Your task to perform on an android device: Do I have any events this weekend? Image 0: 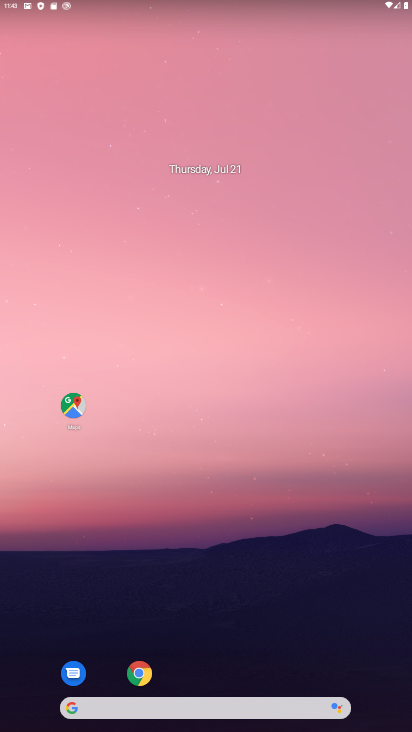
Step 0: drag from (230, 576) to (189, 314)
Your task to perform on an android device: Do I have any events this weekend? Image 1: 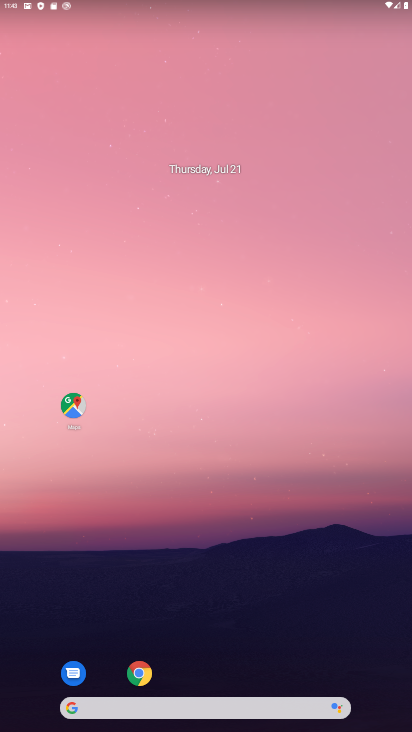
Step 1: drag from (210, 591) to (203, 143)
Your task to perform on an android device: Do I have any events this weekend? Image 2: 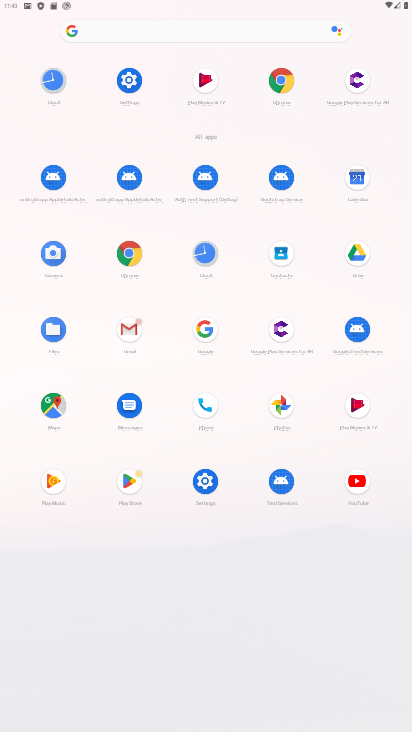
Step 2: click (354, 179)
Your task to perform on an android device: Do I have any events this weekend? Image 3: 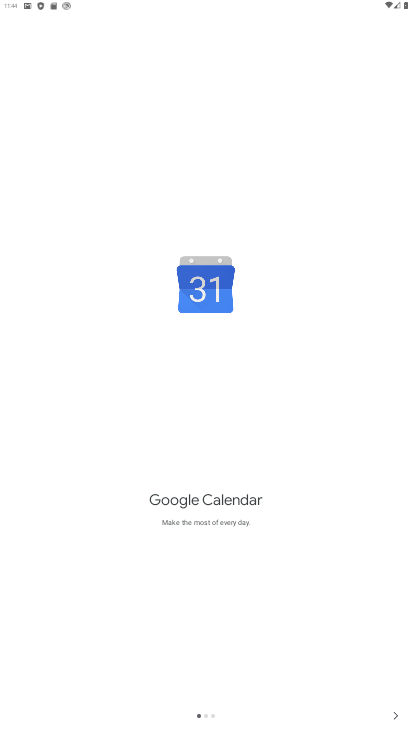
Step 3: click (395, 714)
Your task to perform on an android device: Do I have any events this weekend? Image 4: 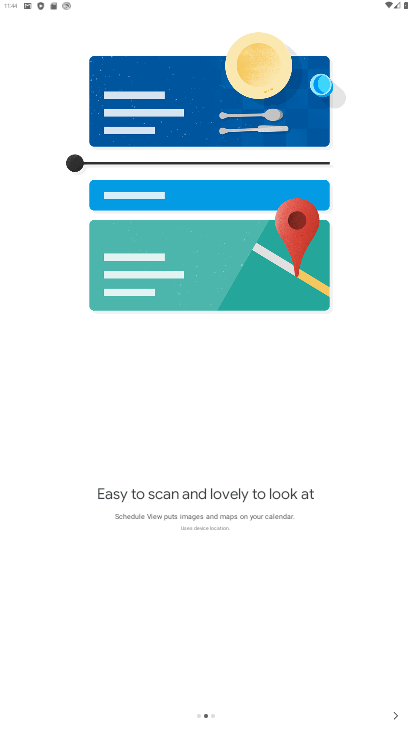
Step 4: click (398, 712)
Your task to perform on an android device: Do I have any events this weekend? Image 5: 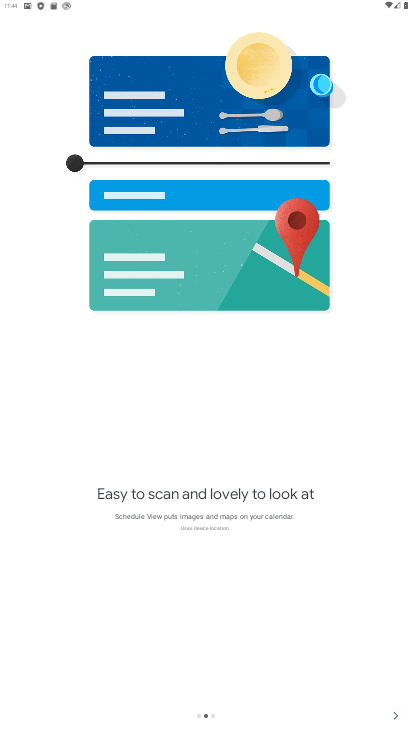
Step 5: click (398, 712)
Your task to perform on an android device: Do I have any events this weekend? Image 6: 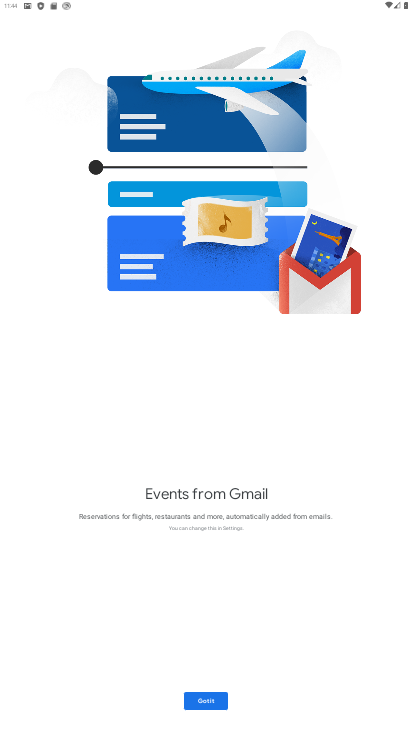
Step 6: click (398, 712)
Your task to perform on an android device: Do I have any events this weekend? Image 7: 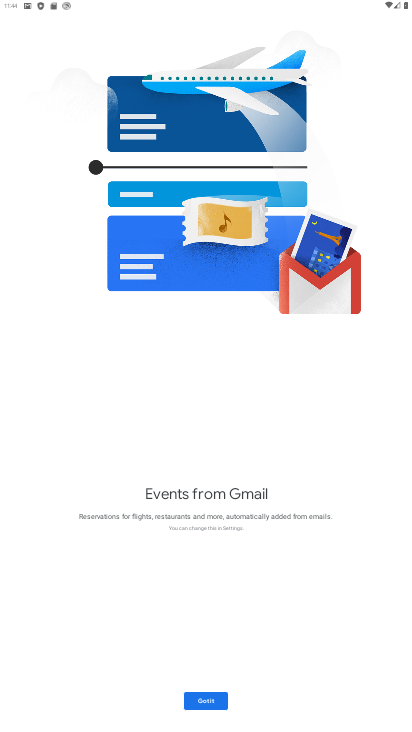
Step 7: click (221, 704)
Your task to perform on an android device: Do I have any events this weekend? Image 8: 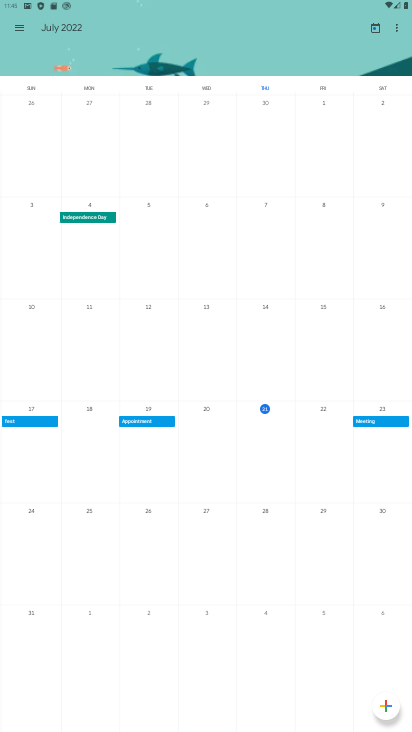
Step 8: press home button
Your task to perform on an android device: Do I have any events this weekend? Image 9: 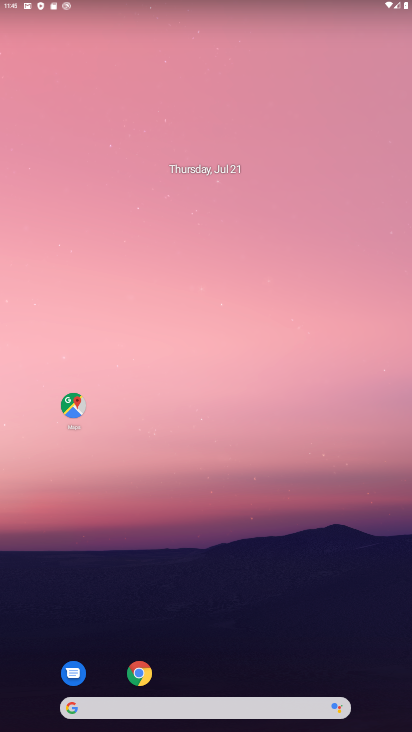
Step 9: drag from (293, 452) to (347, 210)
Your task to perform on an android device: Do I have any events this weekend? Image 10: 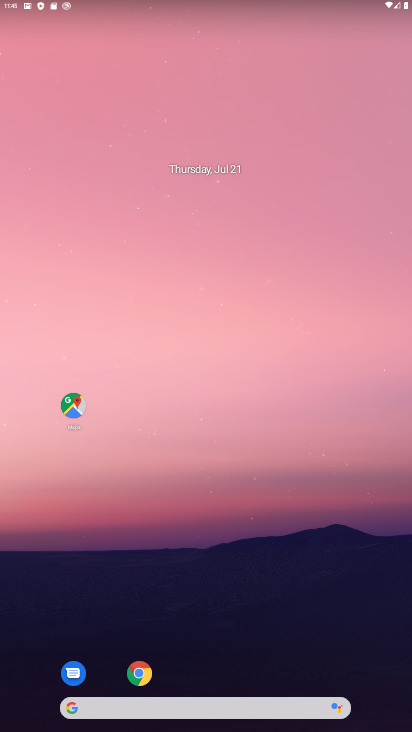
Step 10: drag from (267, 589) to (231, 245)
Your task to perform on an android device: Do I have any events this weekend? Image 11: 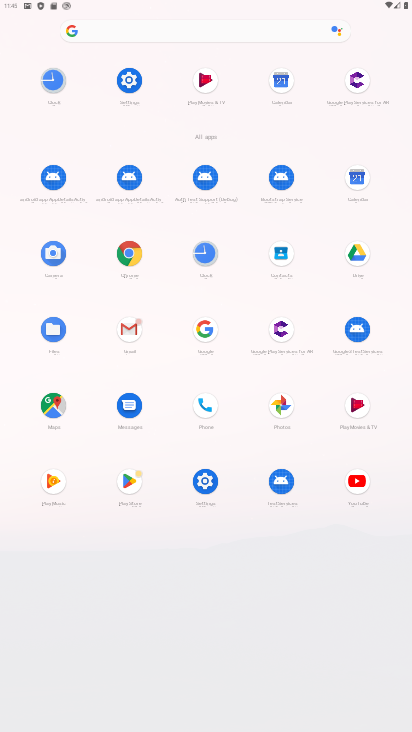
Step 11: click (355, 174)
Your task to perform on an android device: Do I have any events this weekend? Image 12: 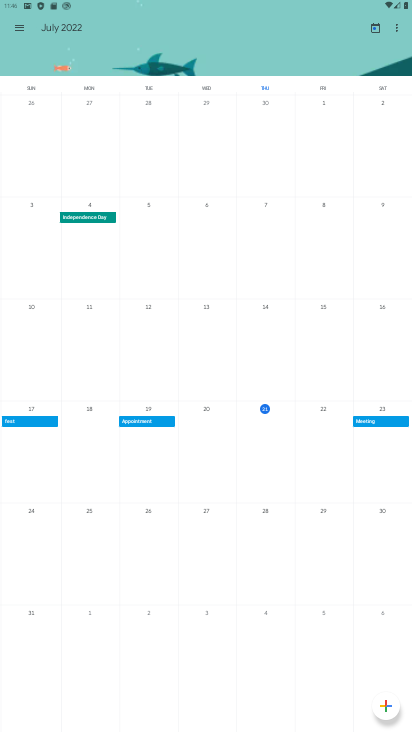
Step 12: press home button
Your task to perform on an android device: Do I have any events this weekend? Image 13: 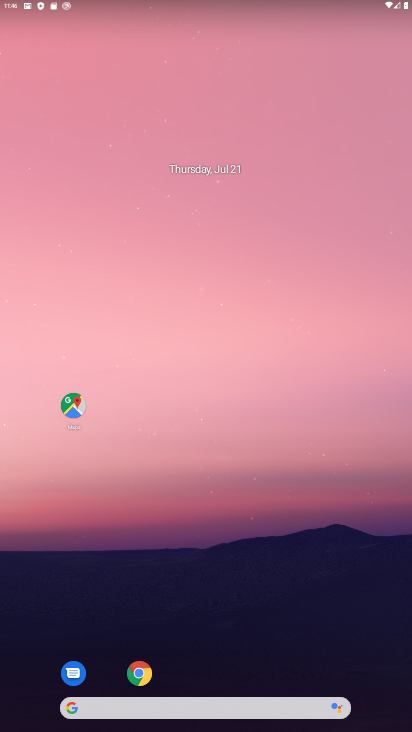
Step 13: drag from (223, 385) to (182, 225)
Your task to perform on an android device: Do I have any events this weekend? Image 14: 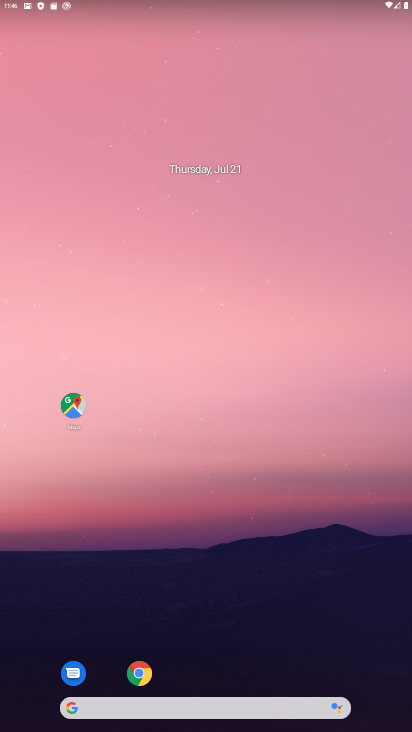
Step 14: drag from (258, 628) to (257, 197)
Your task to perform on an android device: Do I have any events this weekend? Image 15: 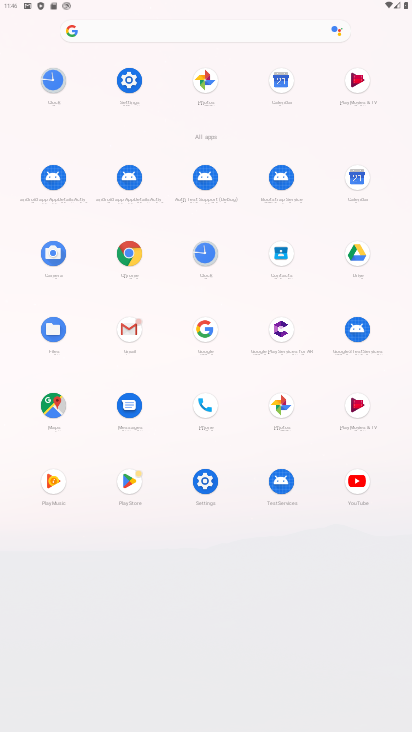
Step 15: click (353, 174)
Your task to perform on an android device: Do I have any events this weekend? Image 16: 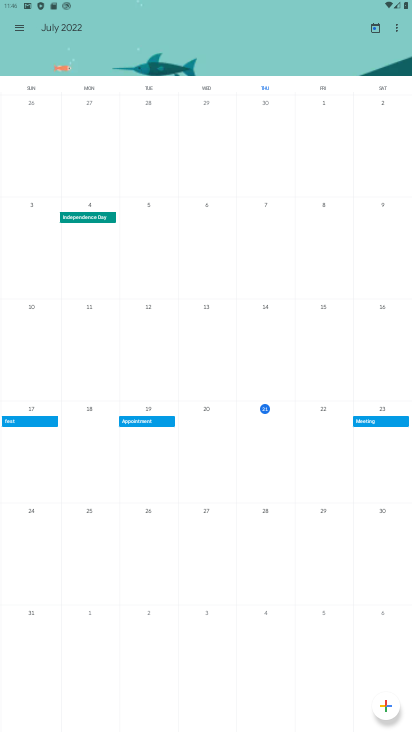
Step 16: task complete